Your task to perform on an android device: Search for Mexican restaurants on Maps Image 0: 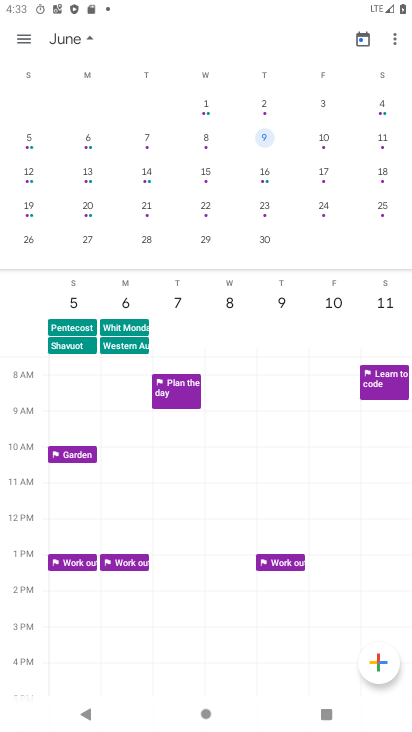
Step 0: press home button
Your task to perform on an android device: Search for Mexican restaurants on Maps Image 1: 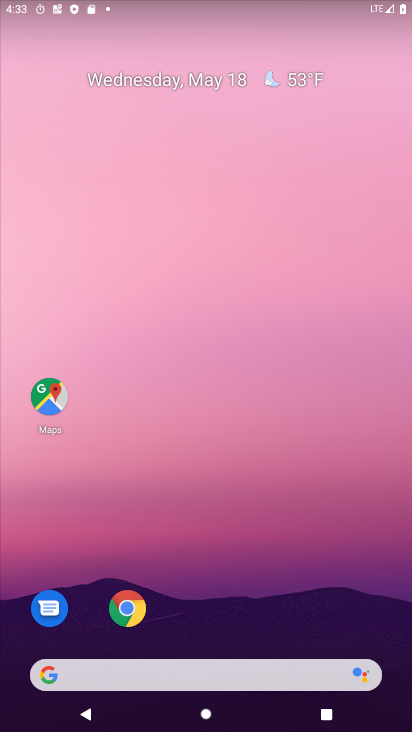
Step 1: drag from (287, 653) to (289, 2)
Your task to perform on an android device: Search for Mexican restaurants on Maps Image 2: 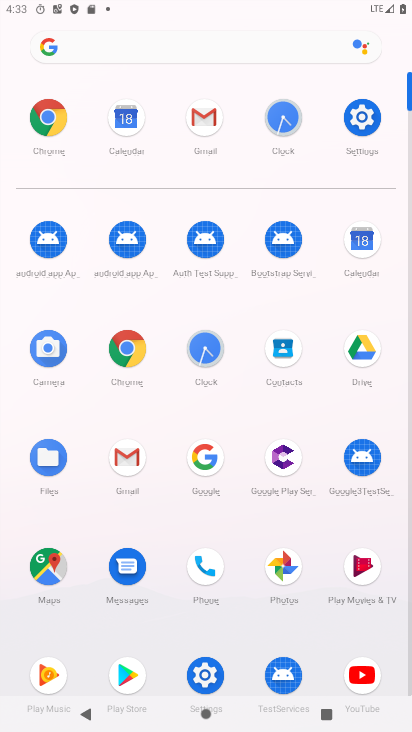
Step 2: click (47, 565)
Your task to perform on an android device: Search for Mexican restaurants on Maps Image 3: 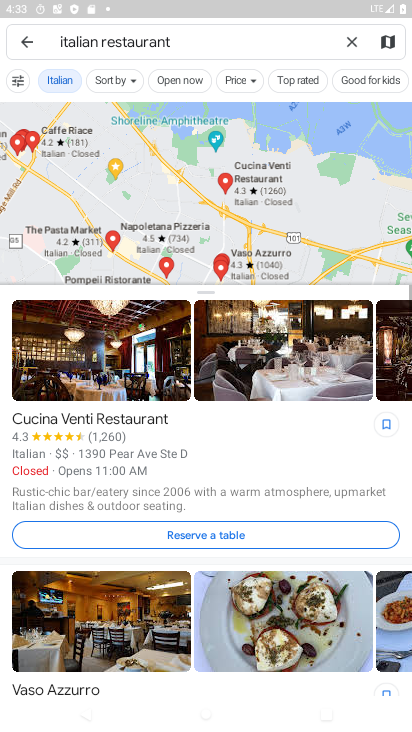
Step 3: click (358, 45)
Your task to perform on an android device: Search for Mexican restaurants on Maps Image 4: 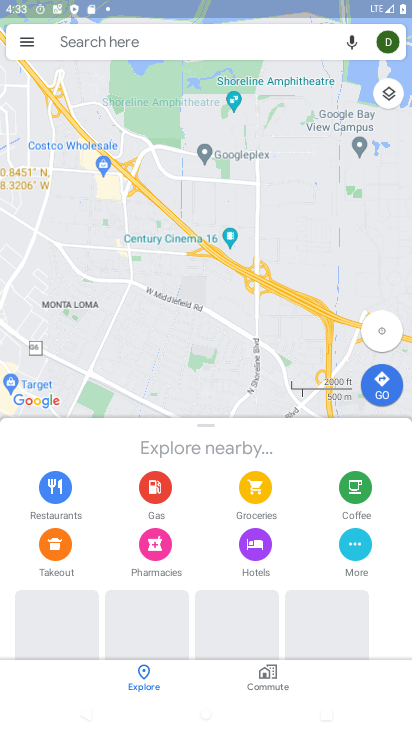
Step 4: click (254, 45)
Your task to perform on an android device: Search for Mexican restaurants on Maps Image 5: 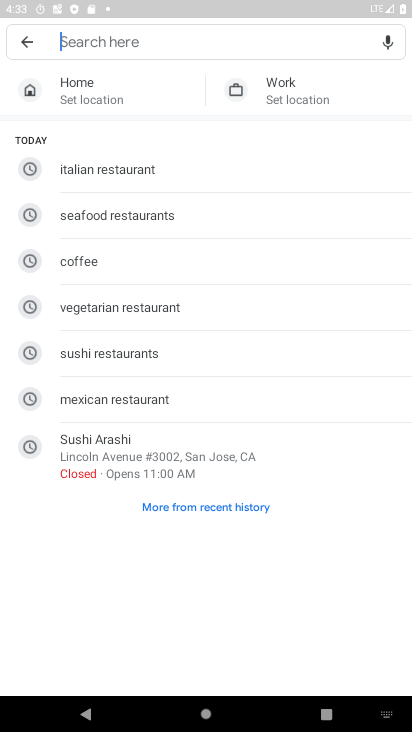
Step 5: click (104, 391)
Your task to perform on an android device: Search for Mexican restaurants on Maps Image 6: 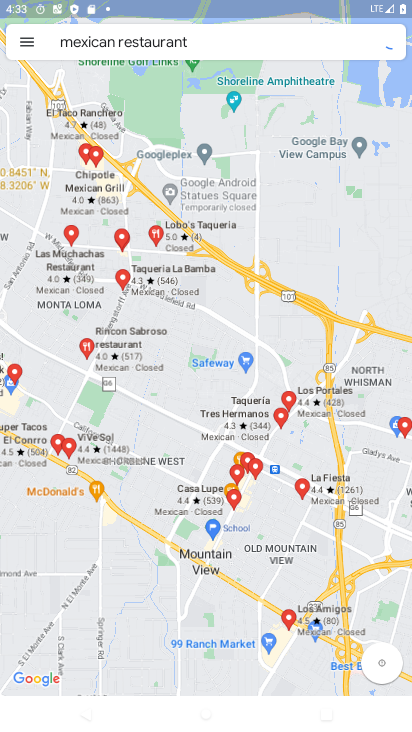
Step 6: task complete